Your task to perform on an android device: Open display settings Image 0: 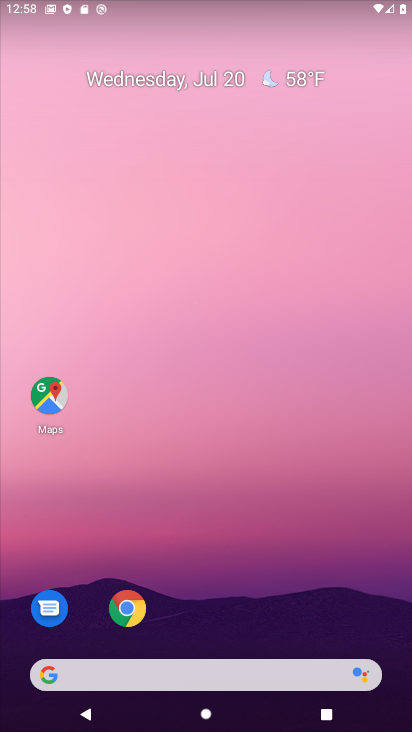
Step 0: drag from (227, 720) to (272, 244)
Your task to perform on an android device: Open display settings Image 1: 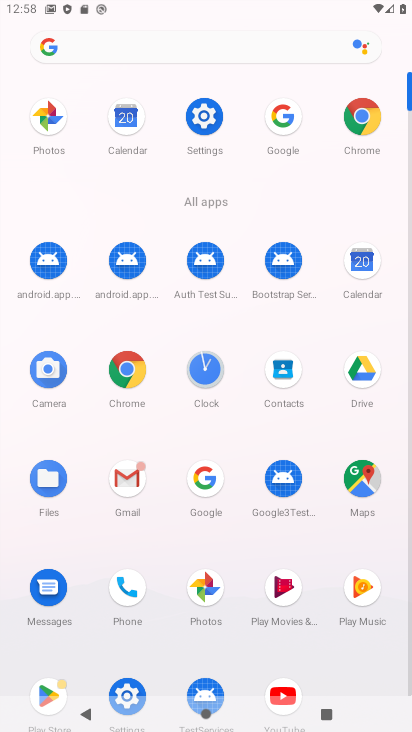
Step 1: click (207, 111)
Your task to perform on an android device: Open display settings Image 2: 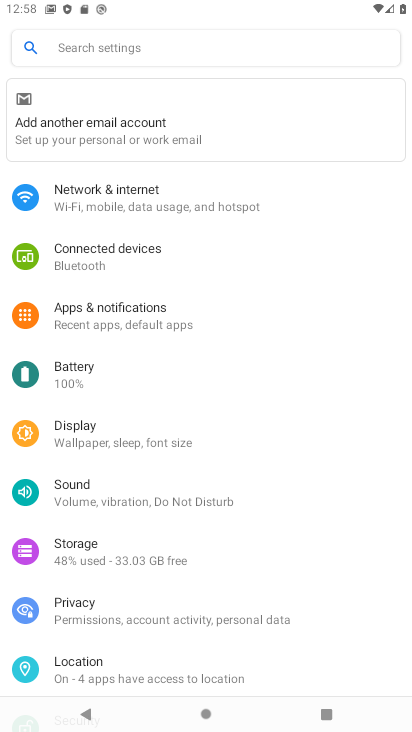
Step 2: click (72, 442)
Your task to perform on an android device: Open display settings Image 3: 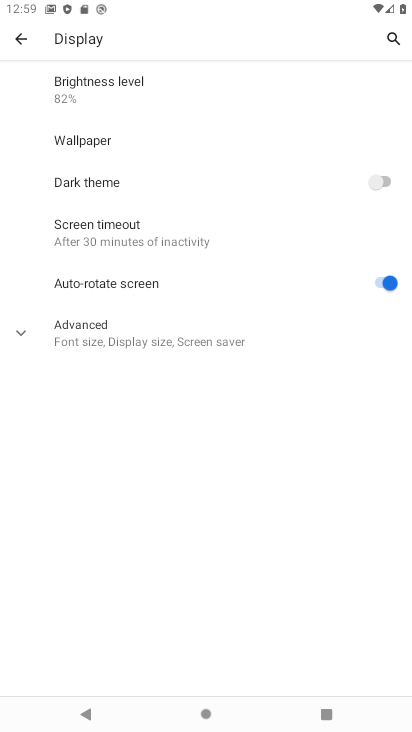
Step 3: task complete